Your task to perform on an android device: change keyboard looks Image 0: 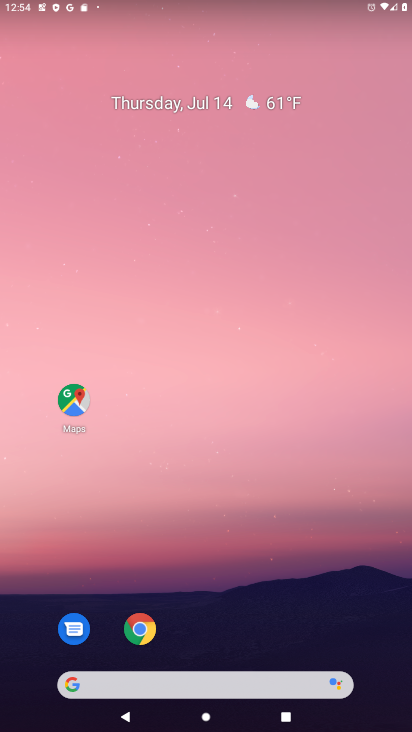
Step 0: click (324, 17)
Your task to perform on an android device: change keyboard looks Image 1: 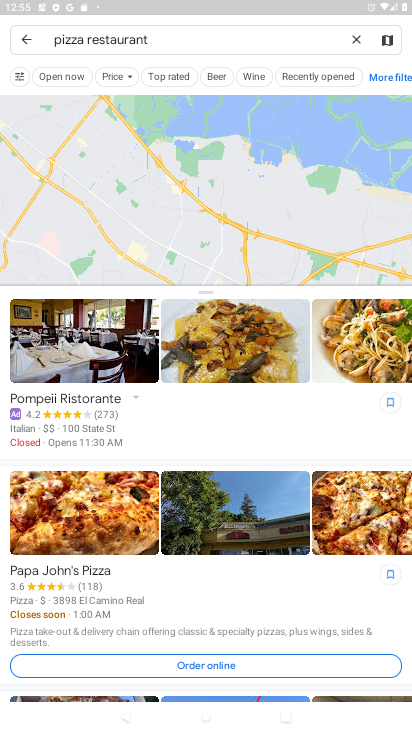
Step 1: press home button
Your task to perform on an android device: change keyboard looks Image 2: 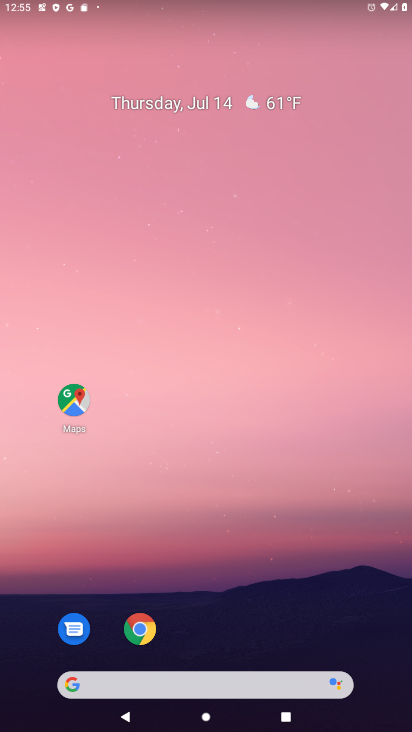
Step 2: drag from (221, 652) to (321, 6)
Your task to perform on an android device: change keyboard looks Image 3: 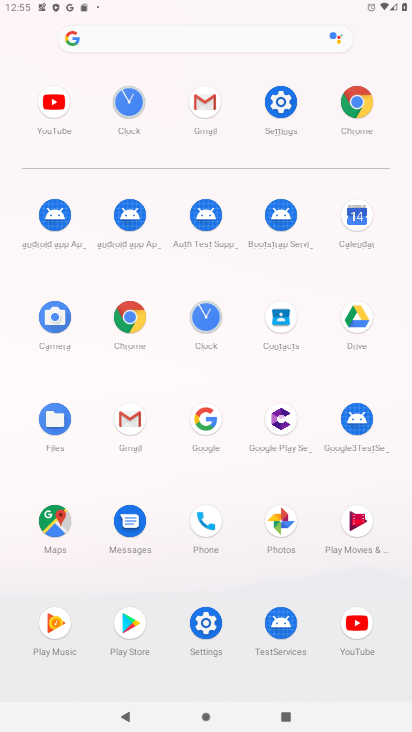
Step 3: click (212, 622)
Your task to perform on an android device: change keyboard looks Image 4: 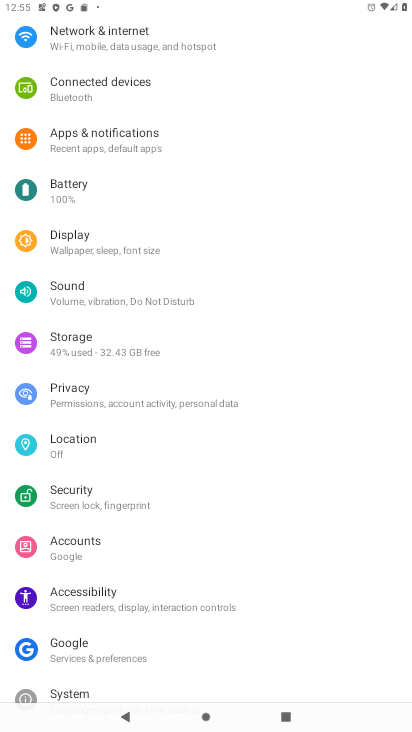
Step 4: drag from (66, 683) to (125, 150)
Your task to perform on an android device: change keyboard looks Image 5: 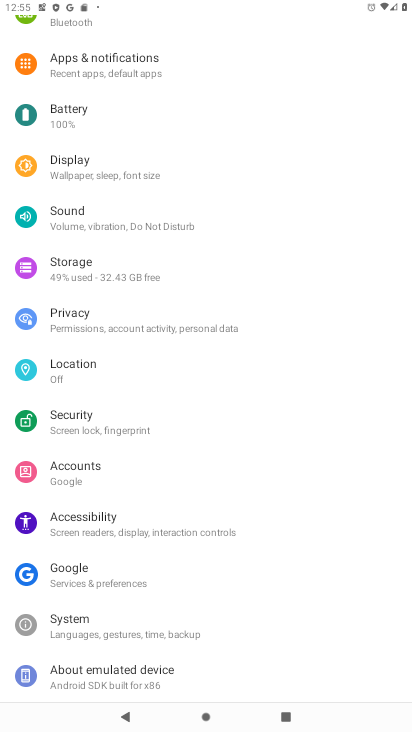
Step 5: click (91, 618)
Your task to perform on an android device: change keyboard looks Image 6: 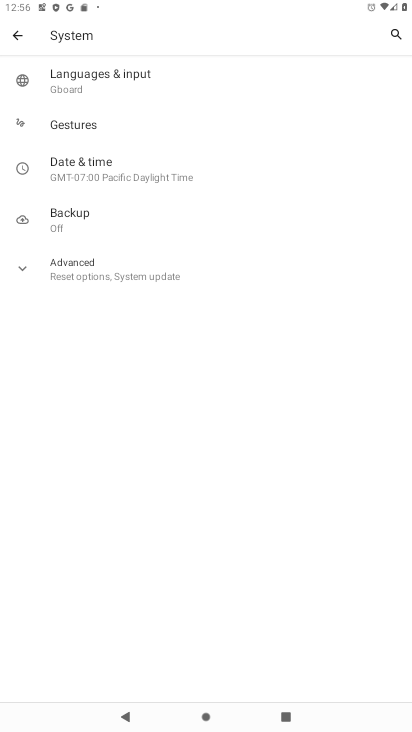
Step 6: click (131, 86)
Your task to perform on an android device: change keyboard looks Image 7: 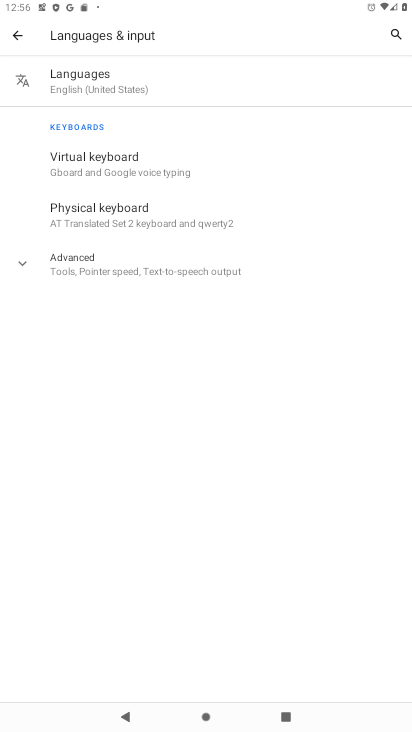
Step 7: click (122, 159)
Your task to perform on an android device: change keyboard looks Image 8: 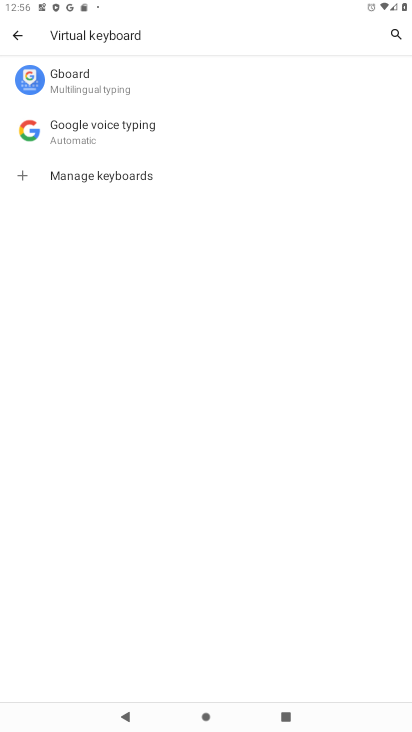
Step 8: click (95, 87)
Your task to perform on an android device: change keyboard looks Image 9: 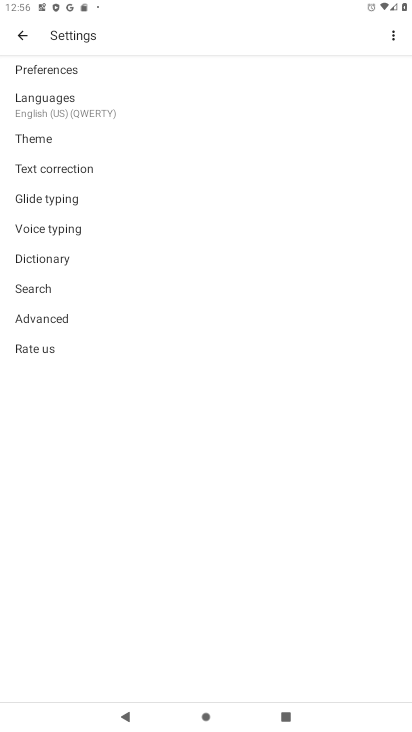
Step 9: click (54, 142)
Your task to perform on an android device: change keyboard looks Image 10: 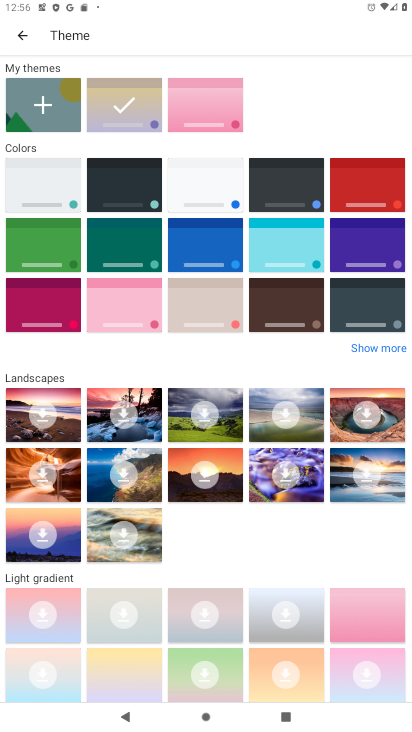
Step 10: click (128, 662)
Your task to perform on an android device: change keyboard looks Image 11: 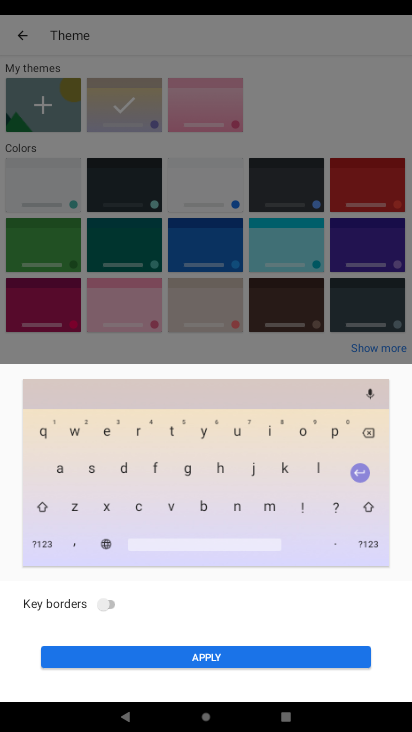
Step 11: click (110, 604)
Your task to perform on an android device: change keyboard looks Image 12: 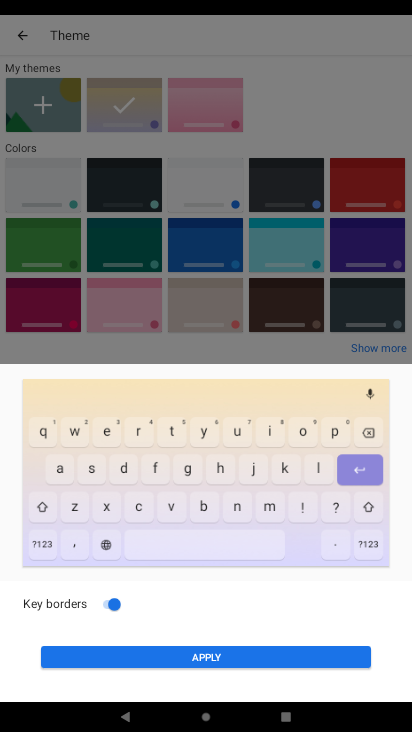
Step 12: click (214, 655)
Your task to perform on an android device: change keyboard looks Image 13: 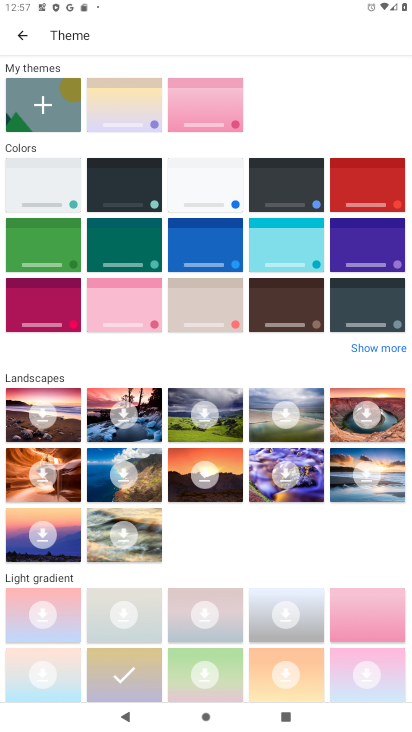
Step 13: task complete